Your task to perform on an android device: turn off location history Image 0: 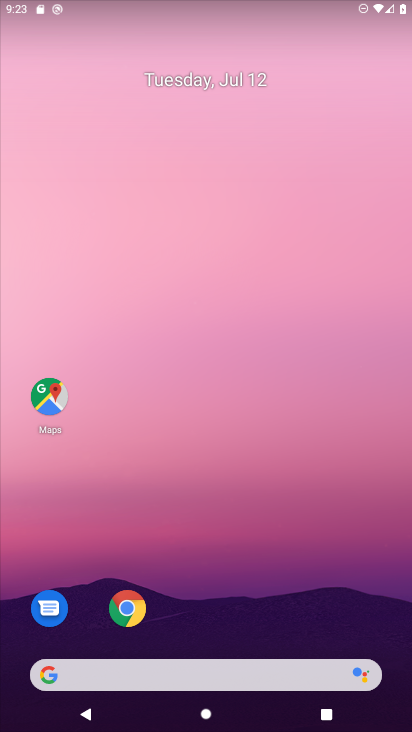
Step 0: drag from (228, 4) to (343, 533)
Your task to perform on an android device: turn off location history Image 1: 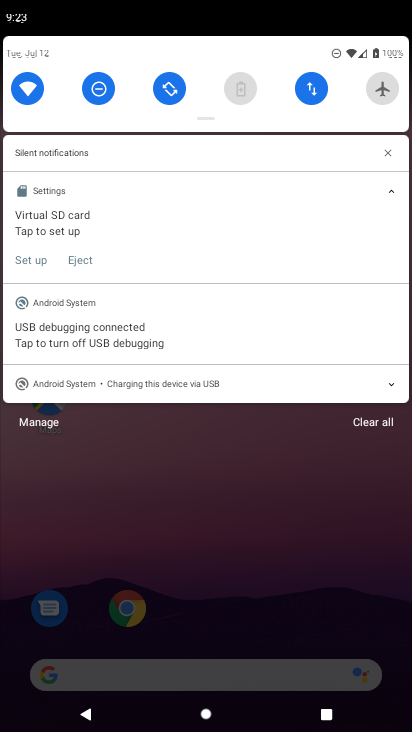
Step 1: drag from (226, 52) to (264, 651)
Your task to perform on an android device: turn off location history Image 2: 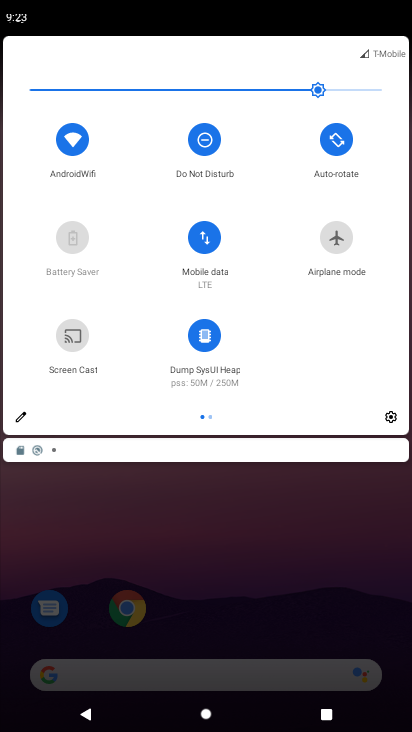
Step 2: click (391, 421)
Your task to perform on an android device: turn off location history Image 3: 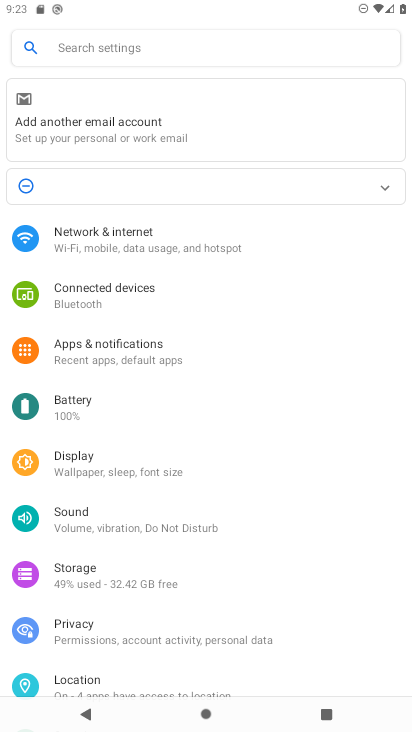
Step 3: click (82, 678)
Your task to perform on an android device: turn off location history Image 4: 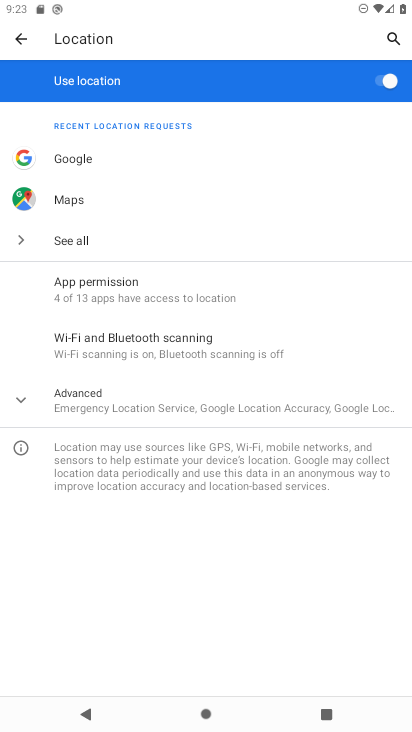
Step 4: click (120, 388)
Your task to perform on an android device: turn off location history Image 5: 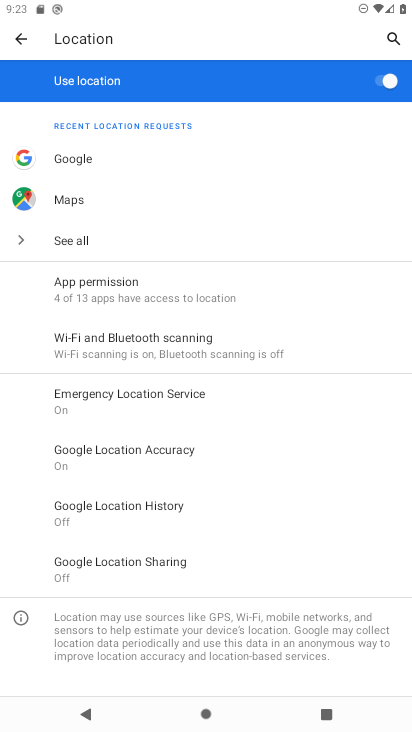
Step 5: click (107, 512)
Your task to perform on an android device: turn off location history Image 6: 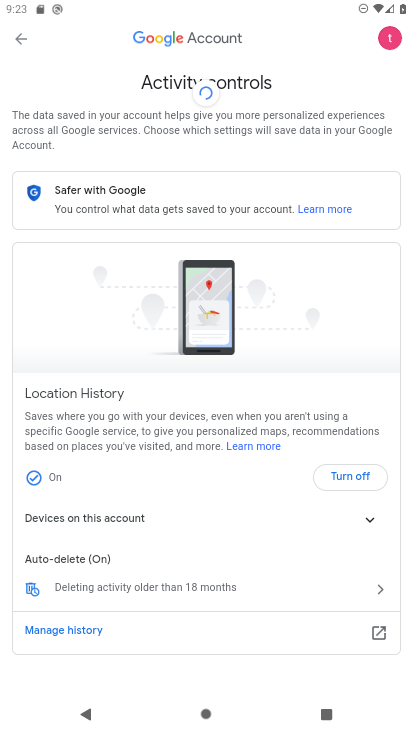
Step 6: click (354, 477)
Your task to perform on an android device: turn off location history Image 7: 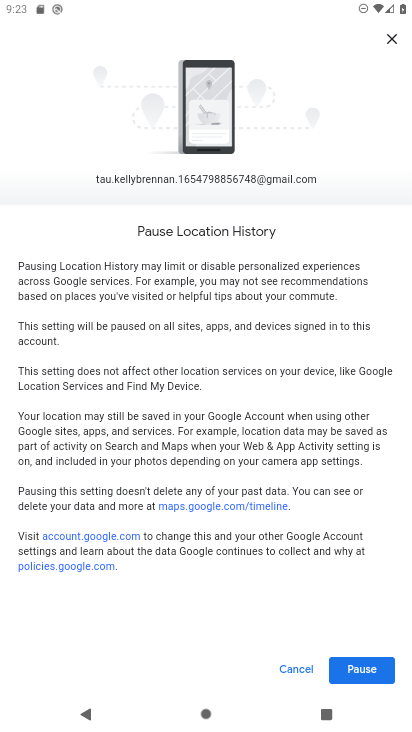
Step 7: click (371, 669)
Your task to perform on an android device: turn off location history Image 8: 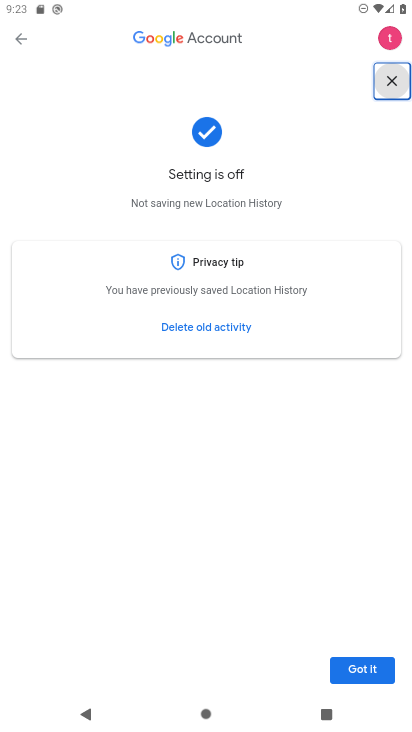
Step 8: task complete